Your task to perform on an android device: toggle wifi Image 0: 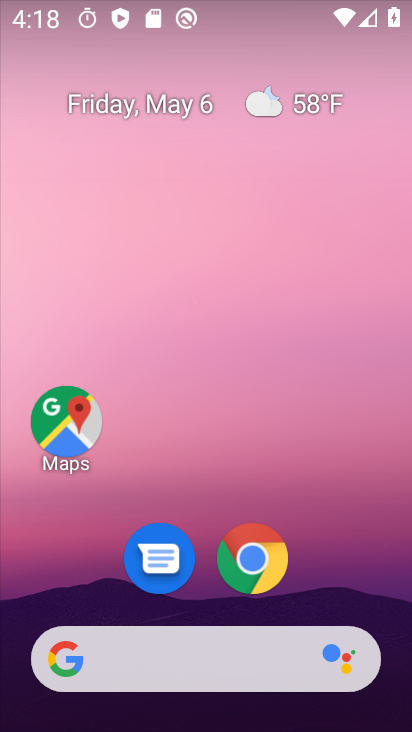
Step 0: drag from (343, 625) to (279, 17)
Your task to perform on an android device: toggle wifi Image 1: 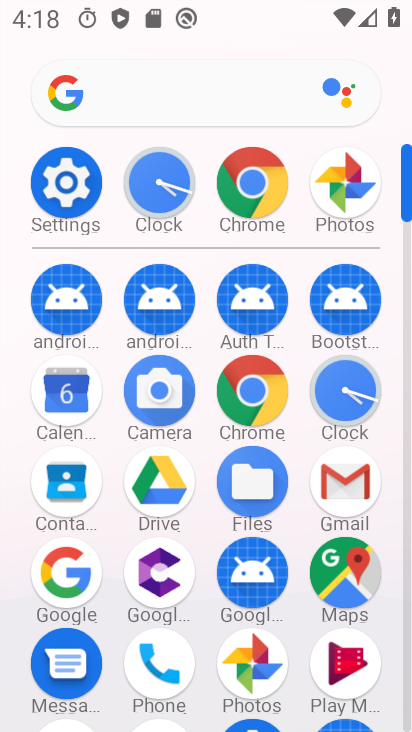
Step 1: click (75, 170)
Your task to perform on an android device: toggle wifi Image 2: 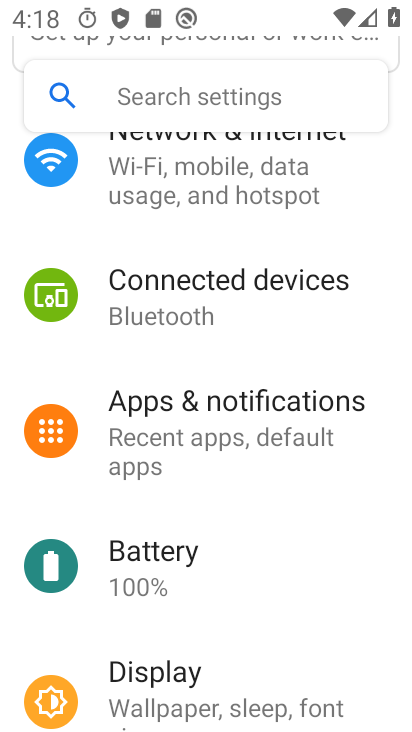
Step 2: drag from (170, 218) to (169, 709)
Your task to perform on an android device: toggle wifi Image 3: 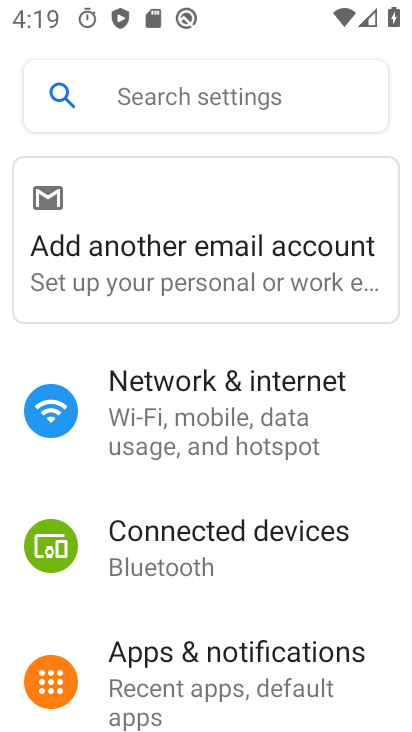
Step 3: click (205, 441)
Your task to perform on an android device: toggle wifi Image 4: 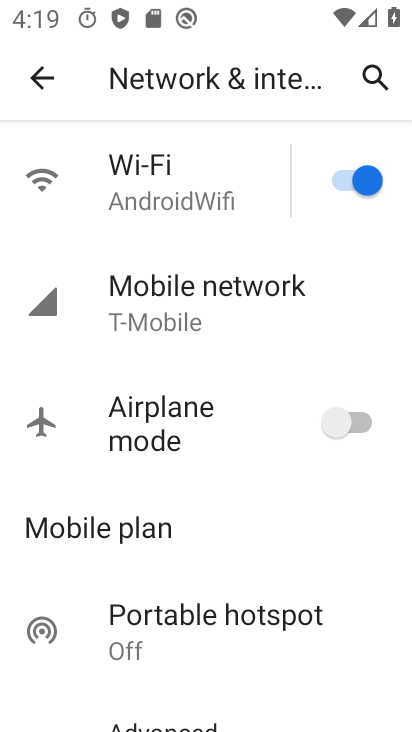
Step 4: click (338, 184)
Your task to perform on an android device: toggle wifi Image 5: 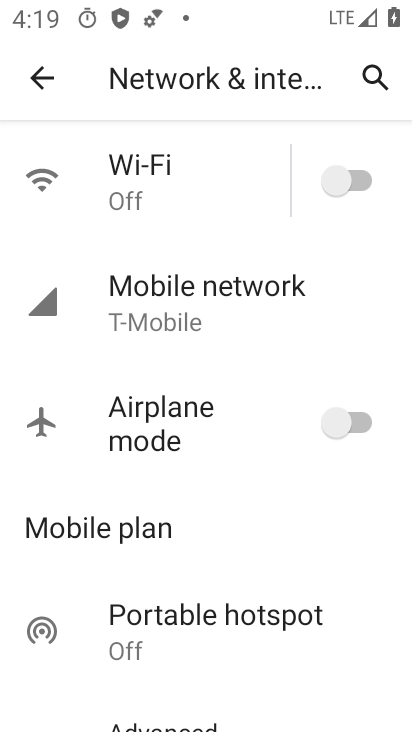
Step 5: task complete